Your task to perform on an android device: turn off data saver in the chrome app Image 0: 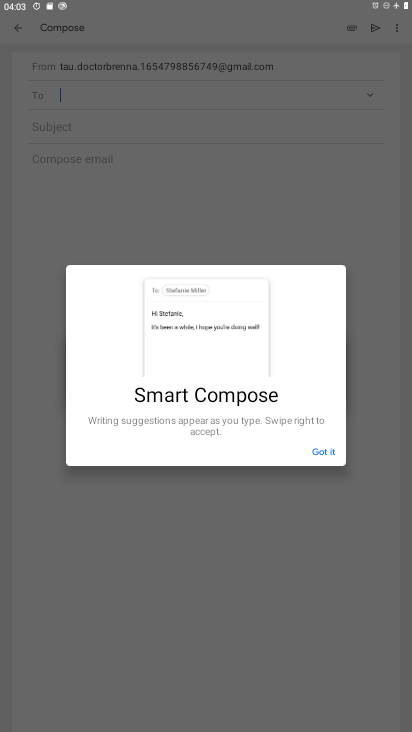
Step 0: press home button
Your task to perform on an android device: turn off data saver in the chrome app Image 1: 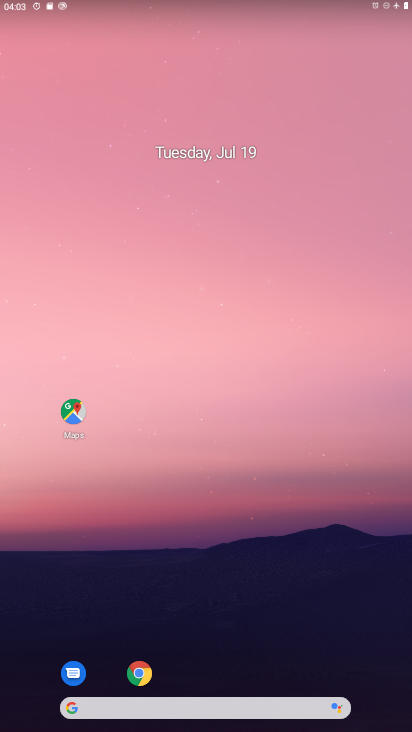
Step 1: drag from (204, 677) to (228, 62)
Your task to perform on an android device: turn off data saver in the chrome app Image 2: 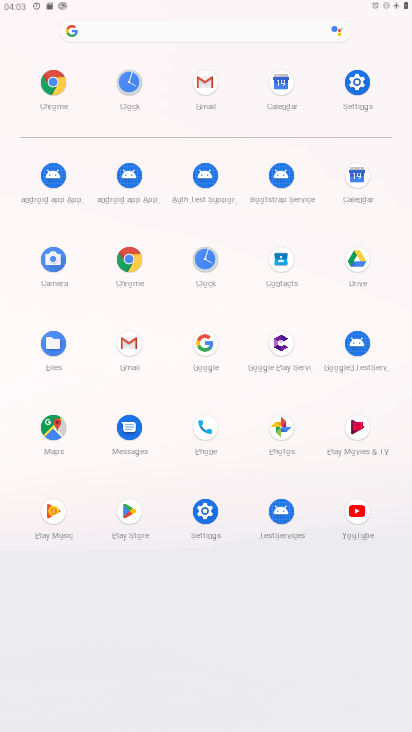
Step 2: click (135, 261)
Your task to perform on an android device: turn off data saver in the chrome app Image 3: 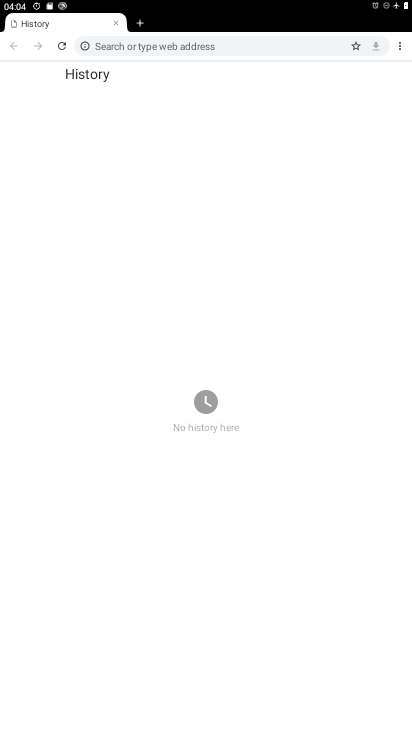
Step 3: click (396, 41)
Your task to perform on an android device: turn off data saver in the chrome app Image 4: 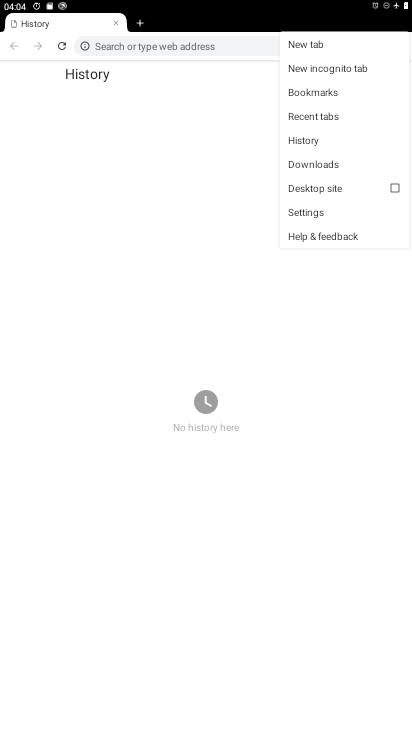
Step 4: click (302, 213)
Your task to perform on an android device: turn off data saver in the chrome app Image 5: 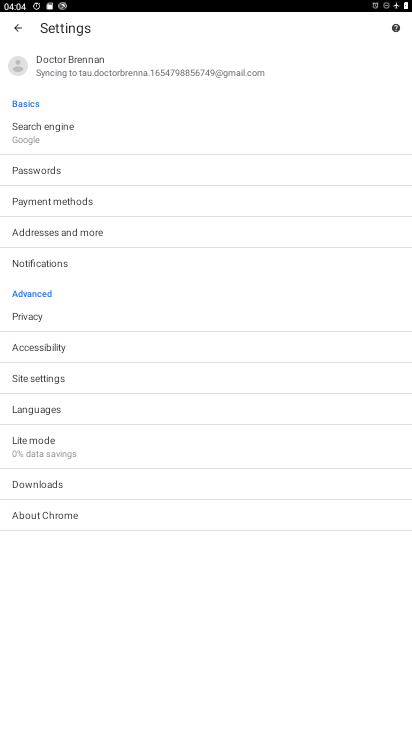
Step 5: click (61, 442)
Your task to perform on an android device: turn off data saver in the chrome app Image 6: 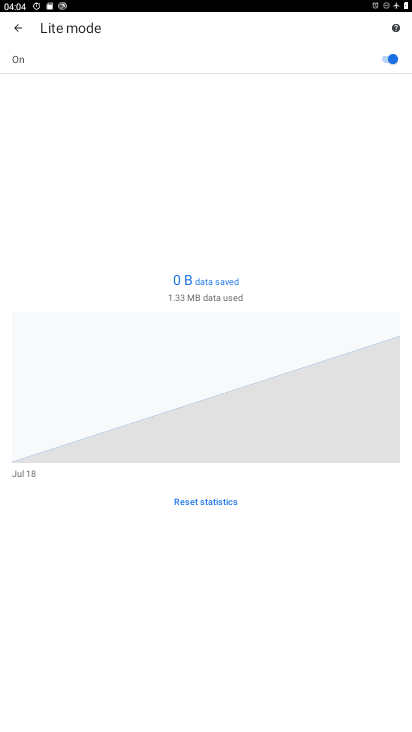
Step 6: click (372, 59)
Your task to perform on an android device: turn off data saver in the chrome app Image 7: 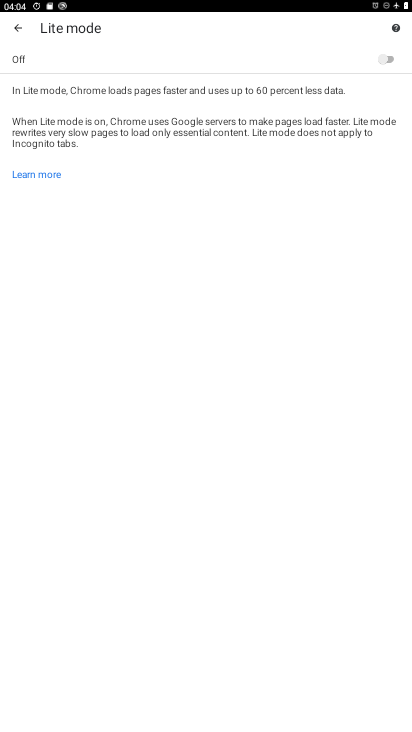
Step 7: task complete